Your task to perform on an android device: turn off data saver in the chrome app Image 0: 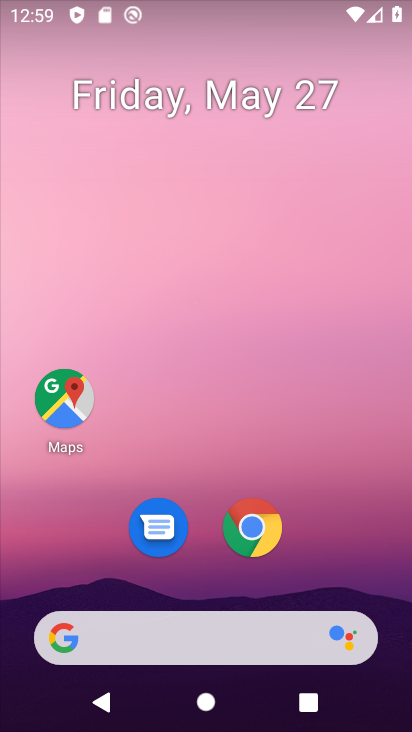
Step 0: click (264, 515)
Your task to perform on an android device: turn off data saver in the chrome app Image 1: 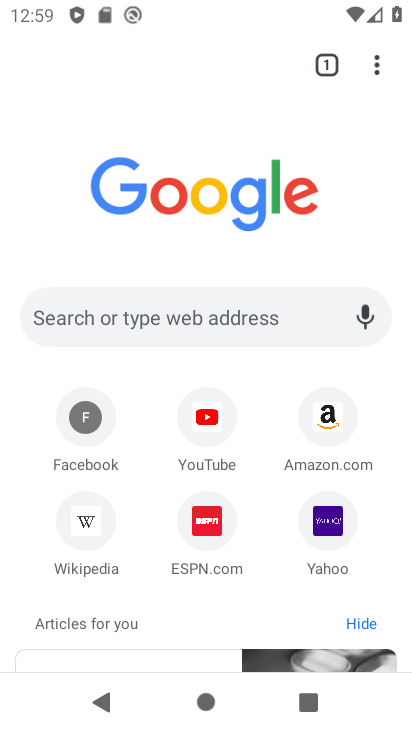
Step 1: click (379, 63)
Your task to perform on an android device: turn off data saver in the chrome app Image 2: 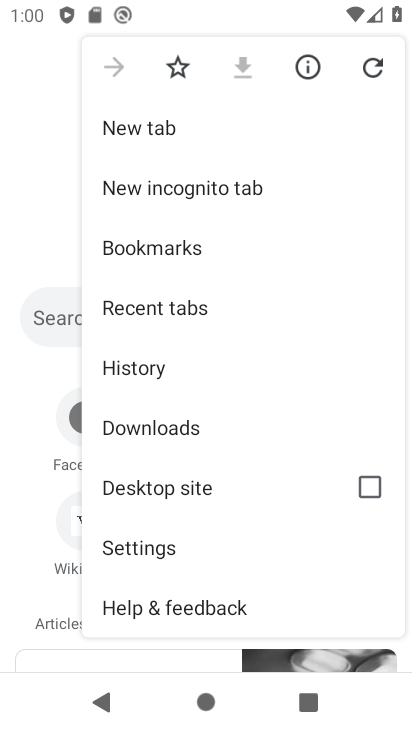
Step 2: click (203, 555)
Your task to perform on an android device: turn off data saver in the chrome app Image 3: 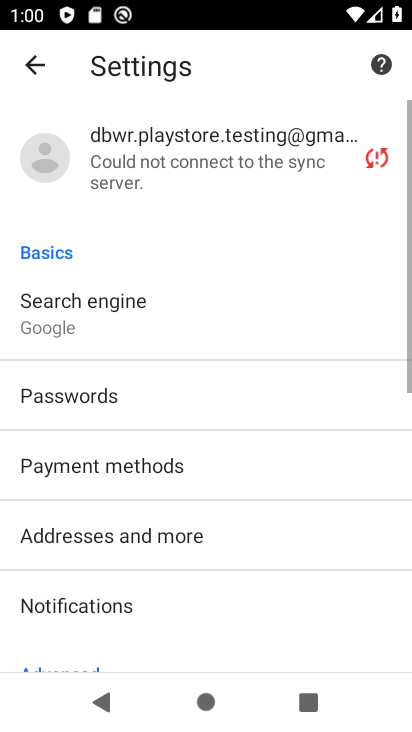
Step 3: drag from (212, 623) to (260, 324)
Your task to perform on an android device: turn off data saver in the chrome app Image 4: 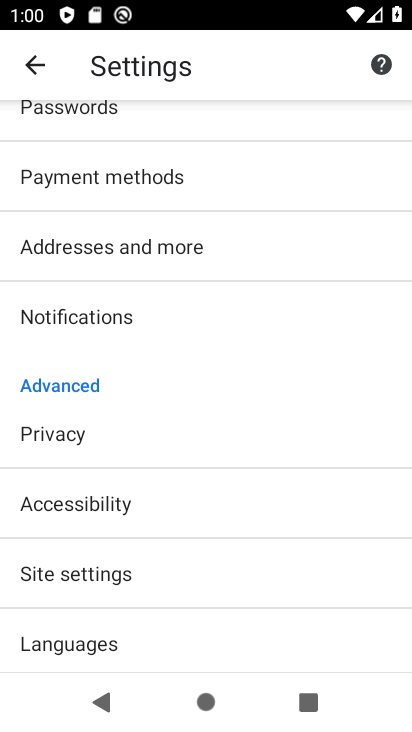
Step 4: drag from (216, 635) to (218, 480)
Your task to perform on an android device: turn off data saver in the chrome app Image 5: 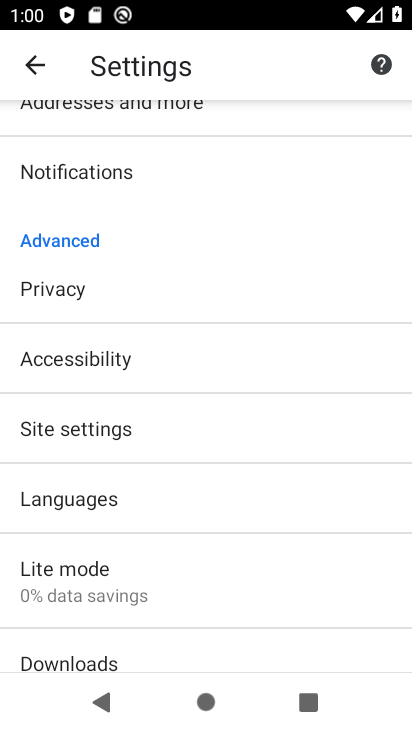
Step 5: click (141, 568)
Your task to perform on an android device: turn off data saver in the chrome app Image 6: 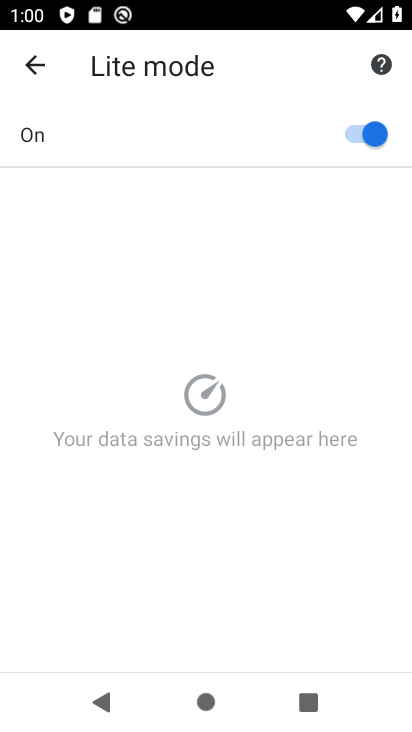
Step 6: click (352, 138)
Your task to perform on an android device: turn off data saver in the chrome app Image 7: 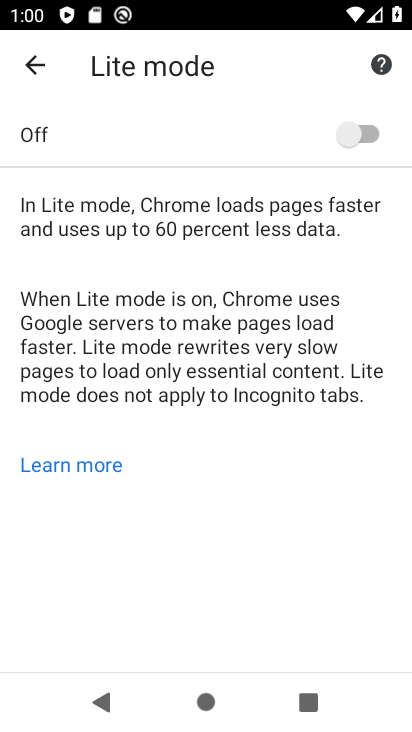
Step 7: task complete